Your task to perform on an android device: Go to Google Image 0: 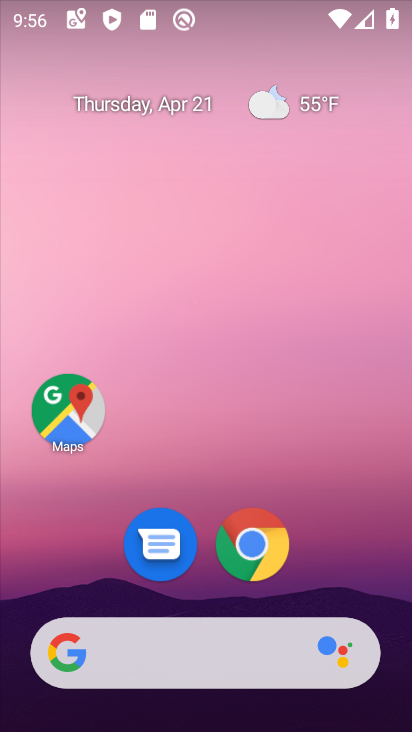
Step 0: drag from (335, 572) to (226, 8)
Your task to perform on an android device: Go to Google Image 1: 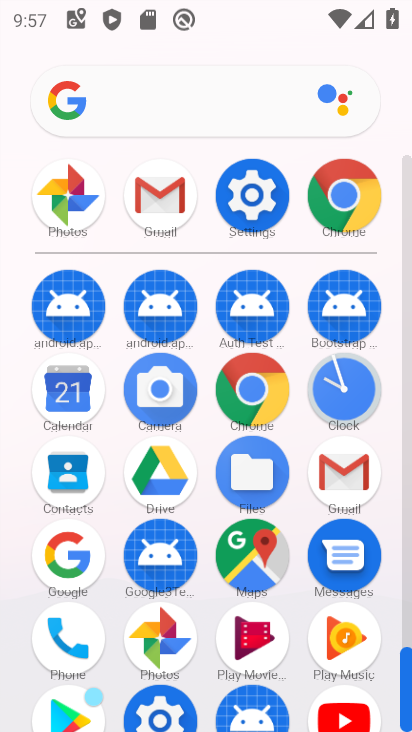
Step 1: click (340, 199)
Your task to perform on an android device: Go to Google Image 2: 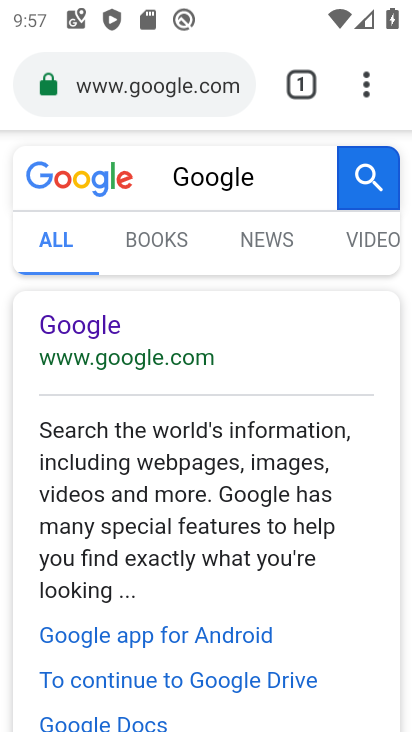
Step 2: click (76, 334)
Your task to perform on an android device: Go to Google Image 3: 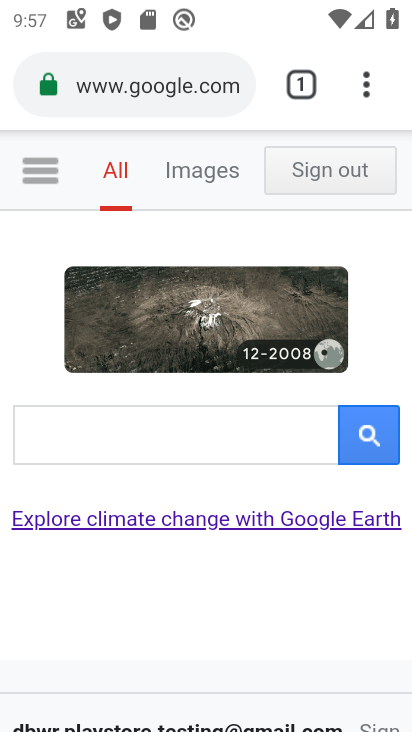
Step 3: task complete